Your task to perform on an android device: Play the new Demi Lovato video on YouTube Image 0: 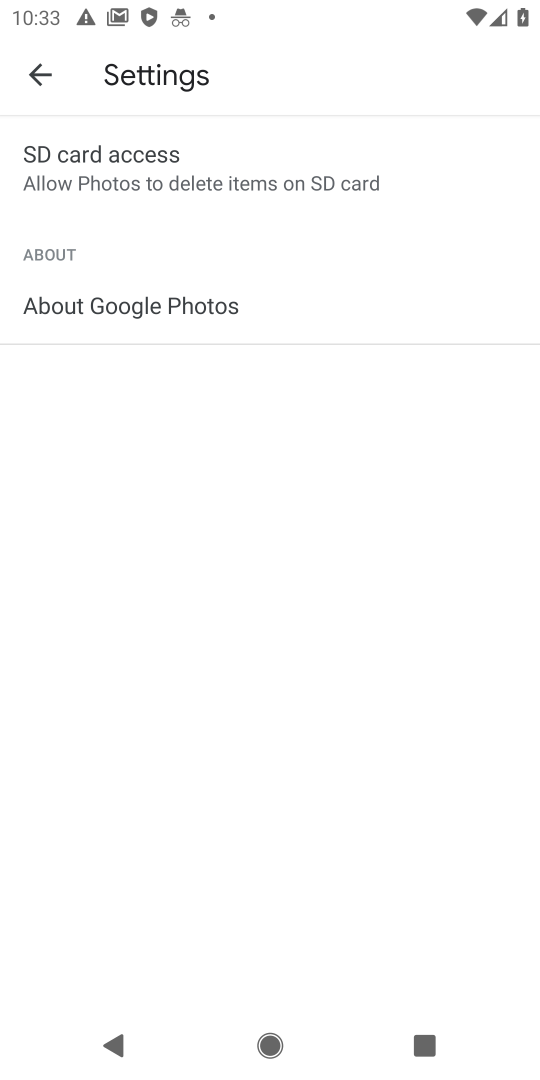
Step 0: press home button
Your task to perform on an android device: Play the new Demi Lovato video on YouTube Image 1: 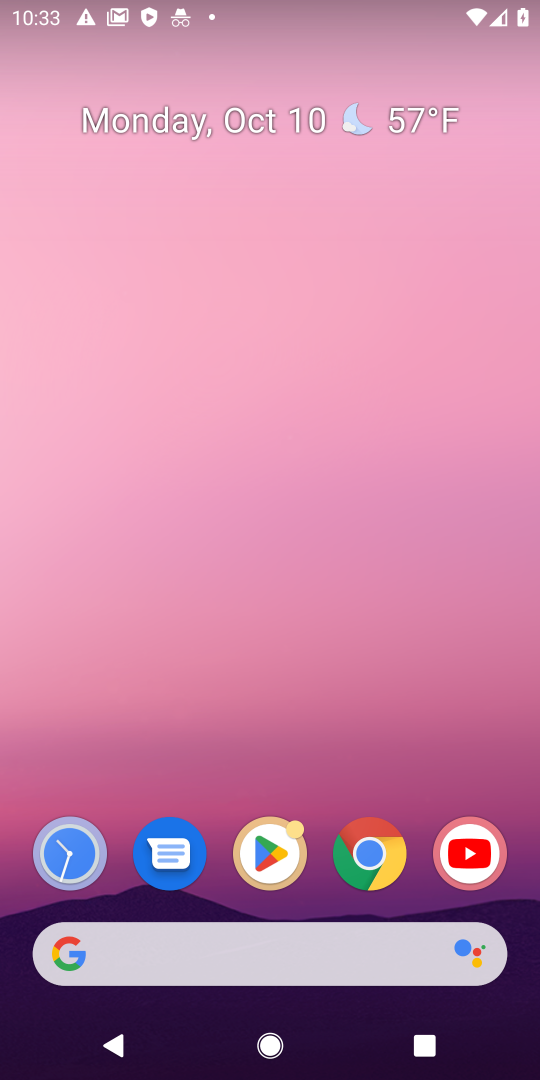
Step 1: drag from (446, 683) to (517, 124)
Your task to perform on an android device: Play the new Demi Lovato video on YouTube Image 2: 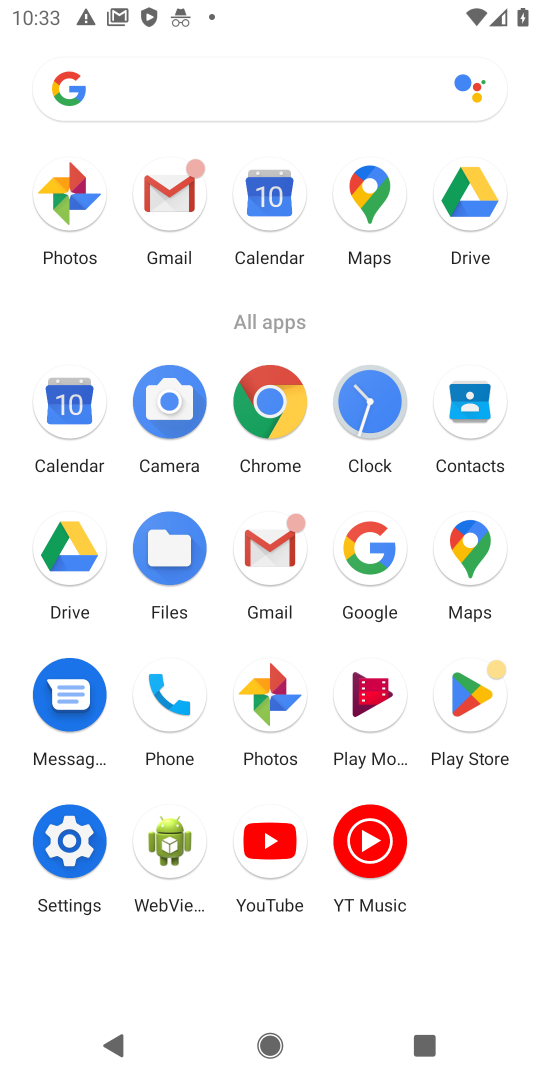
Step 2: click (281, 847)
Your task to perform on an android device: Play the new Demi Lovato video on YouTube Image 3: 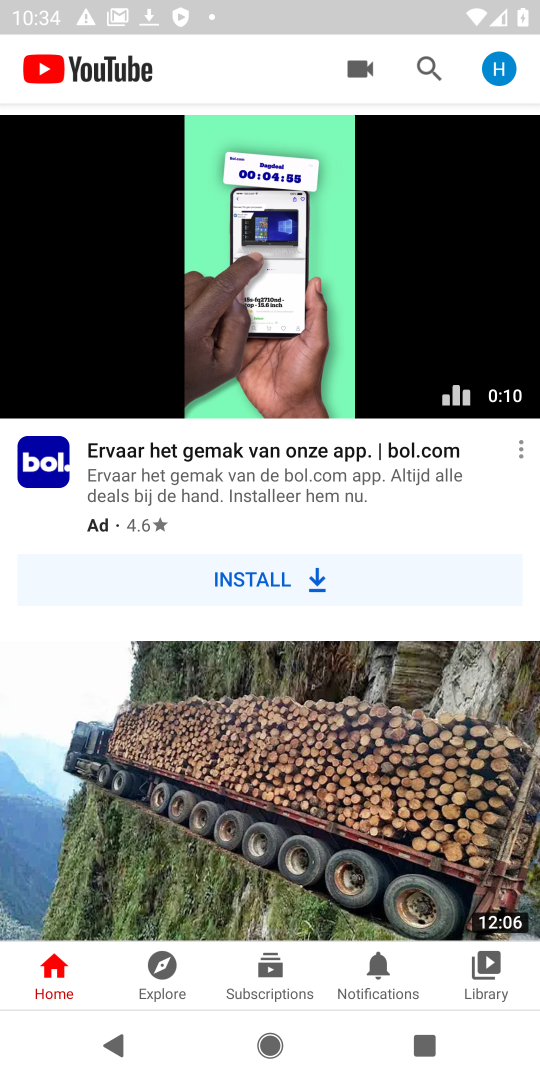
Step 3: click (424, 67)
Your task to perform on an android device: Play the new Demi Lovato video on YouTube Image 4: 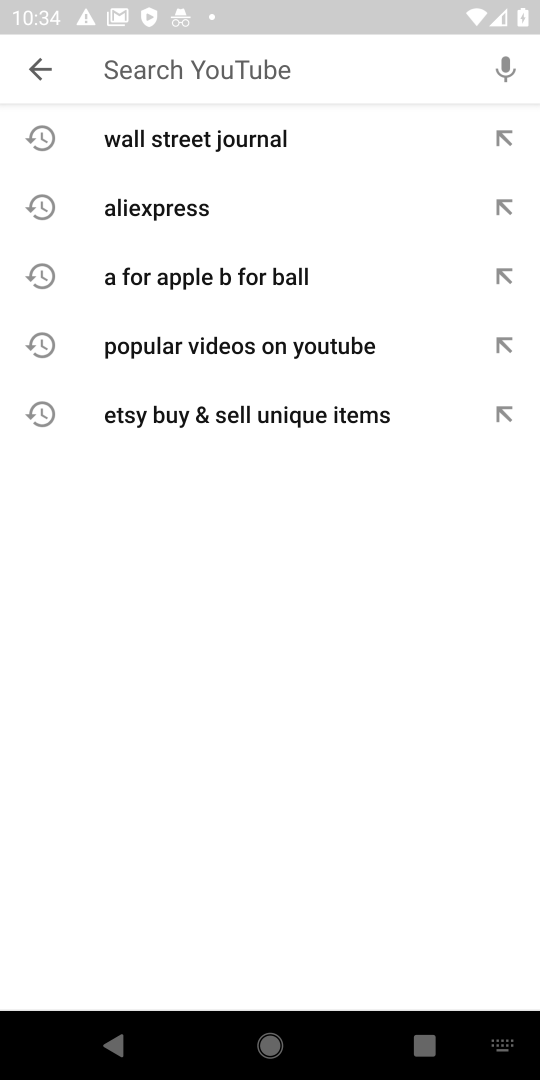
Step 4: type "new Demi Lovato video"
Your task to perform on an android device: Play the new Demi Lovato video on YouTube Image 5: 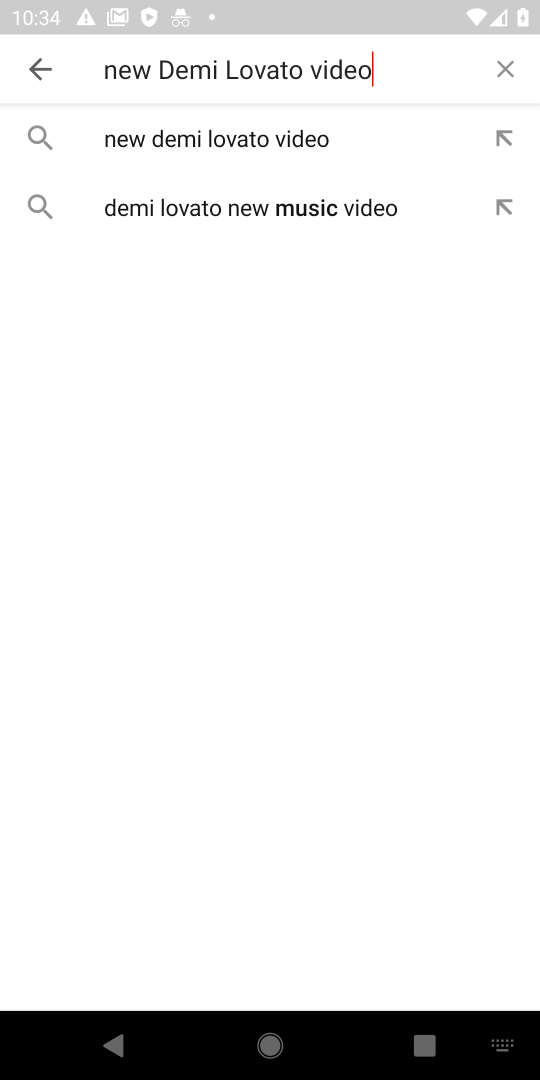
Step 5: press enter
Your task to perform on an android device: Play the new Demi Lovato video on YouTube Image 6: 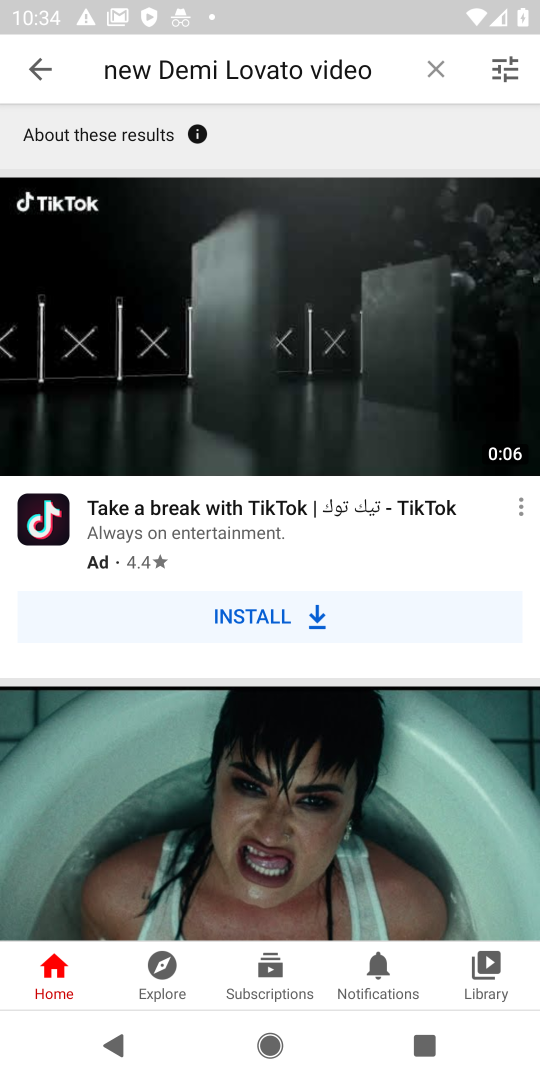
Step 6: drag from (335, 807) to (377, 508)
Your task to perform on an android device: Play the new Demi Lovato video on YouTube Image 7: 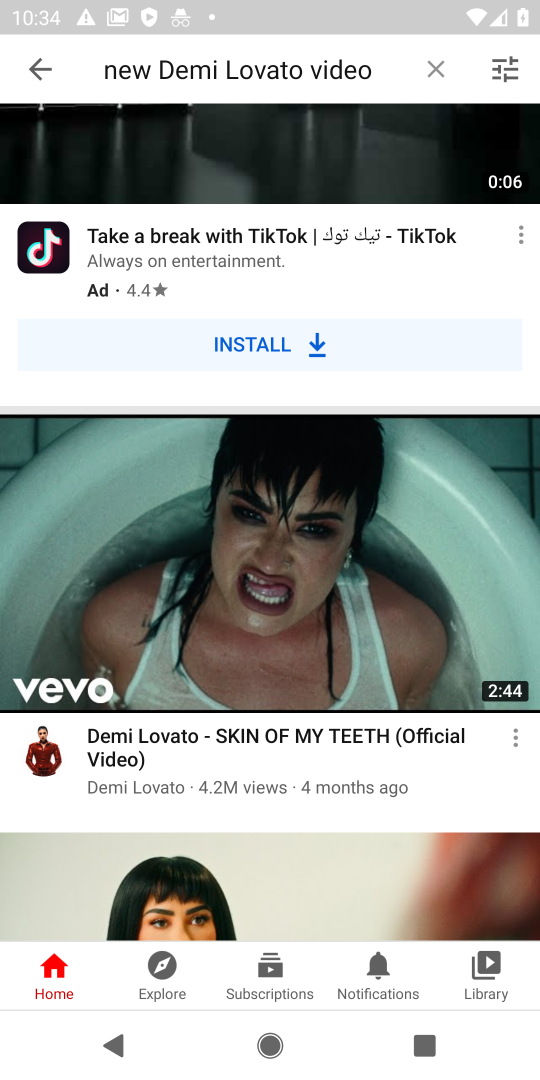
Step 7: click (336, 600)
Your task to perform on an android device: Play the new Demi Lovato video on YouTube Image 8: 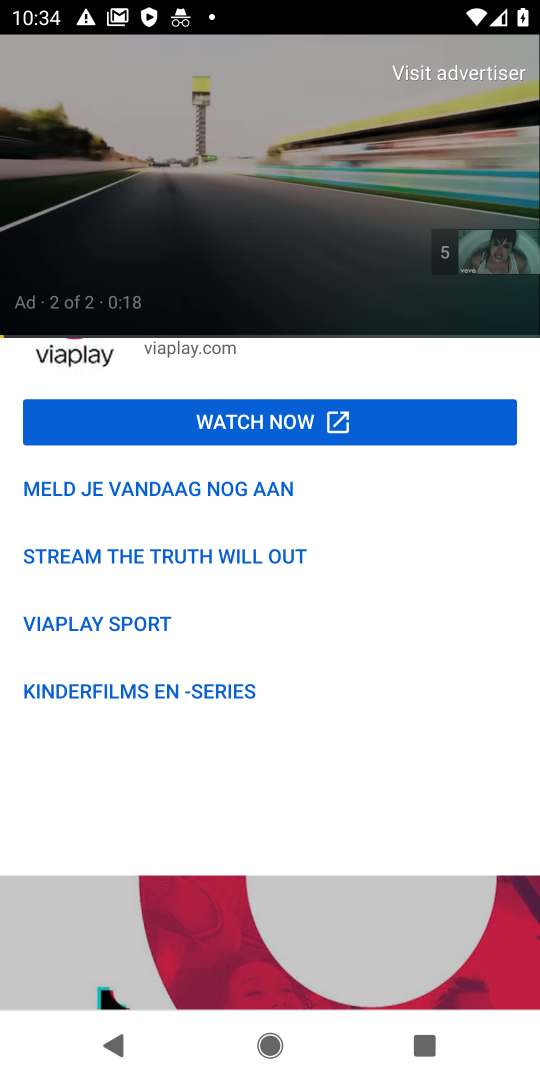
Step 8: click (506, 371)
Your task to perform on an android device: Play the new Demi Lovato video on YouTube Image 9: 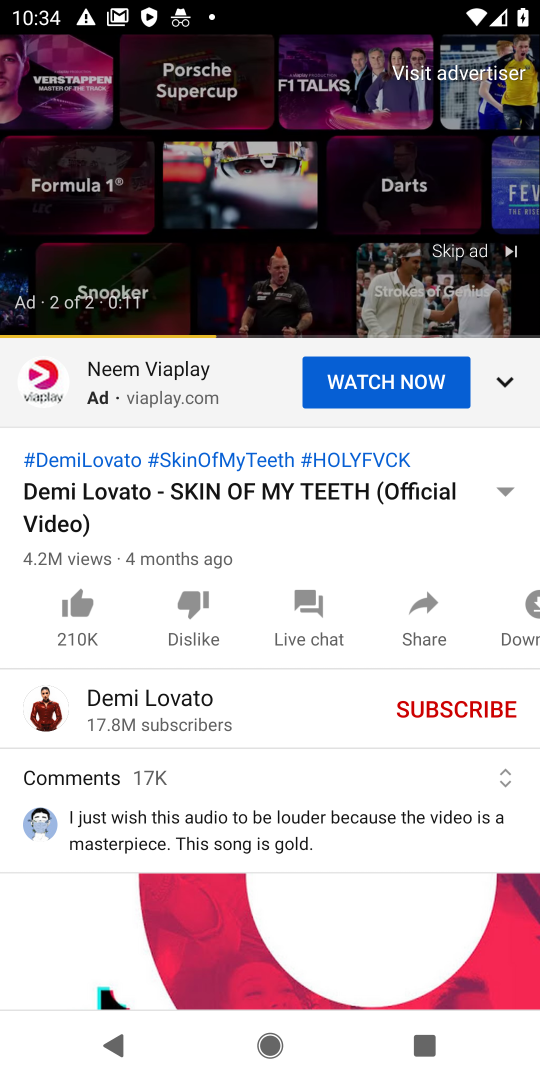
Step 9: click (488, 248)
Your task to perform on an android device: Play the new Demi Lovato video on YouTube Image 10: 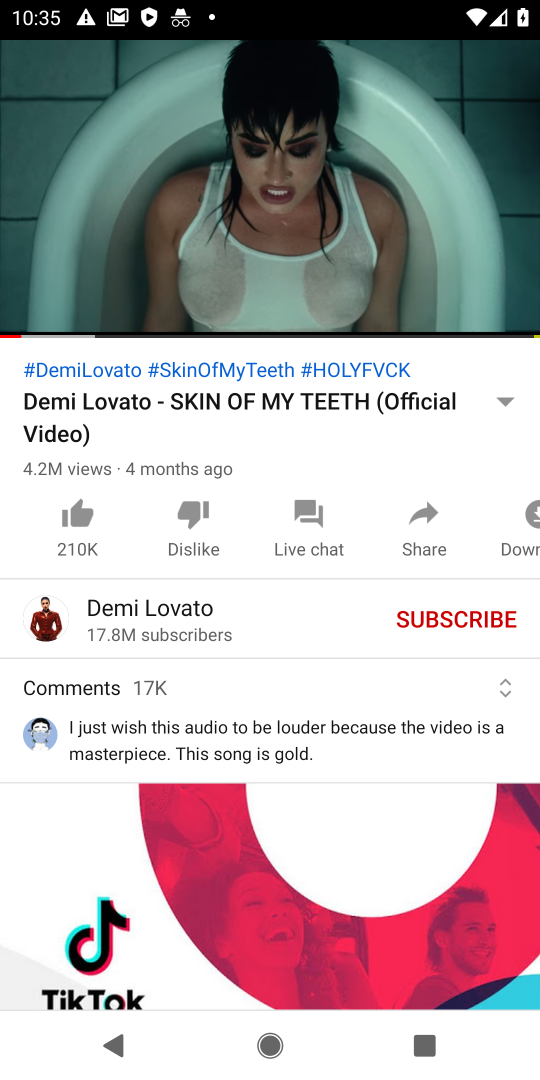
Step 10: task complete